Your task to perform on an android device: see tabs open on other devices in the chrome app Image 0: 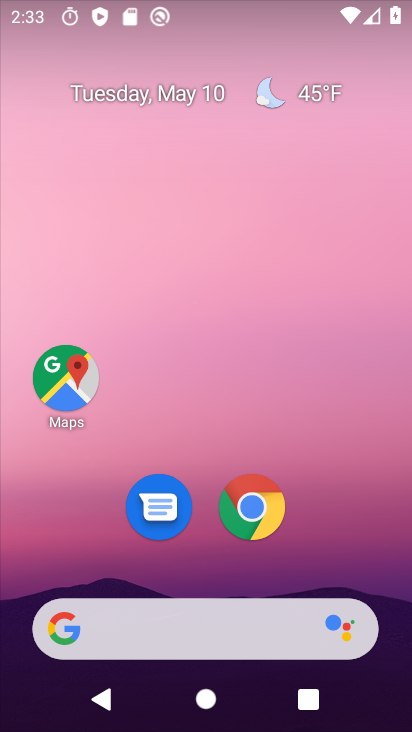
Step 0: click (237, 523)
Your task to perform on an android device: see tabs open on other devices in the chrome app Image 1: 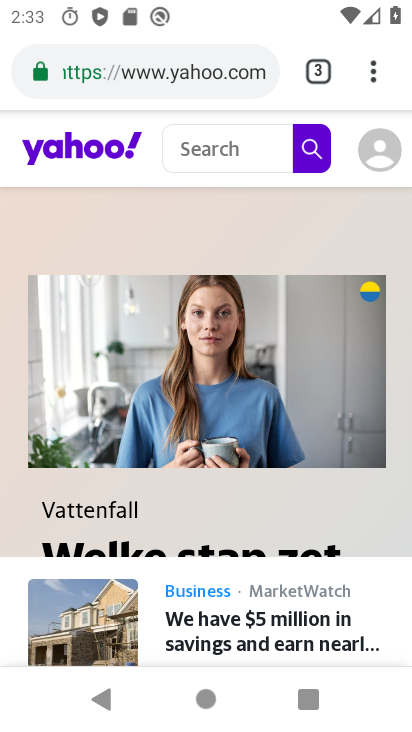
Step 1: click (313, 78)
Your task to perform on an android device: see tabs open on other devices in the chrome app Image 2: 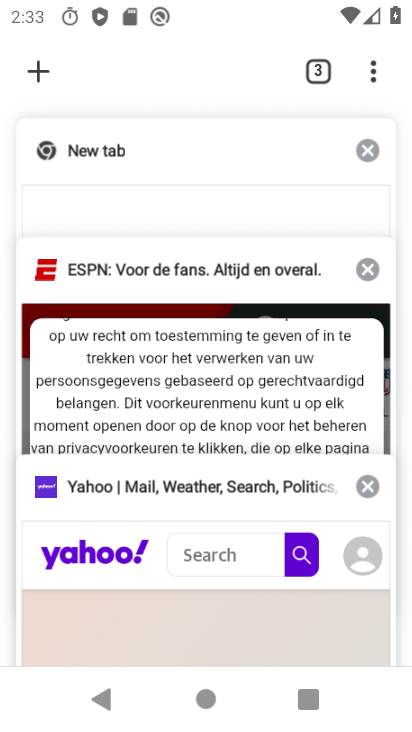
Step 2: task complete